Your task to perform on an android device: Open accessibility settings Image 0: 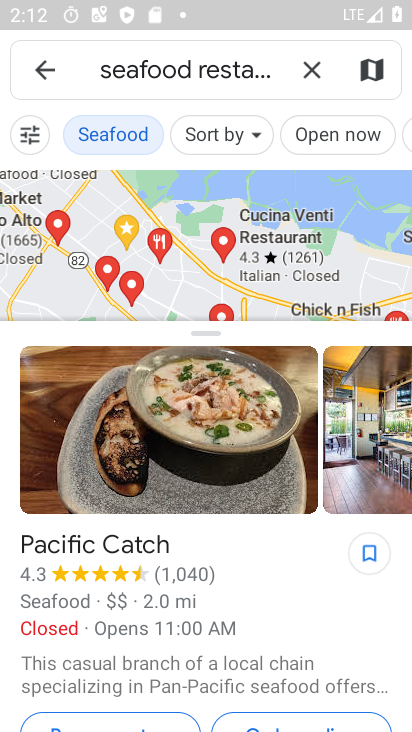
Step 0: press home button
Your task to perform on an android device: Open accessibility settings Image 1: 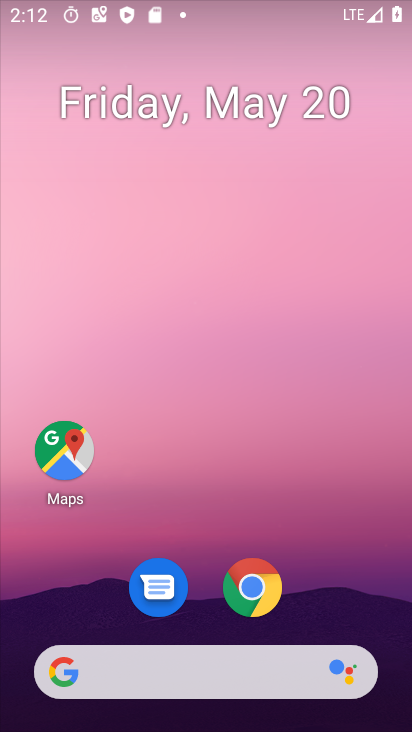
Step 1: drag from (302, 504) to (333, 178)
Your task to perform on an android device: Open accessibility settings Image 2: 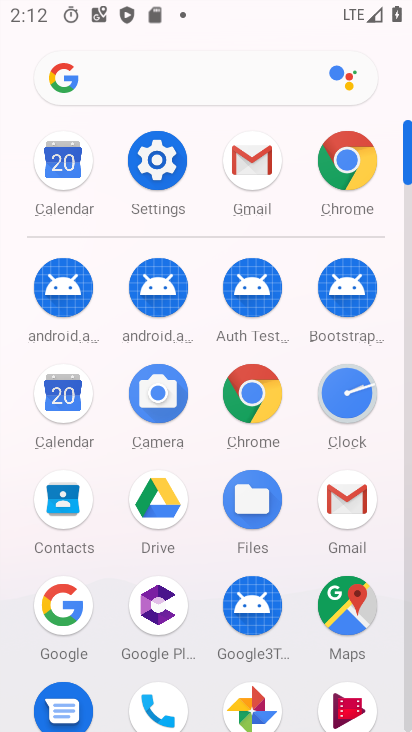
Step 2: click (144, 193)
Your task to perform on an android device: Open accessibility settings Image 3: 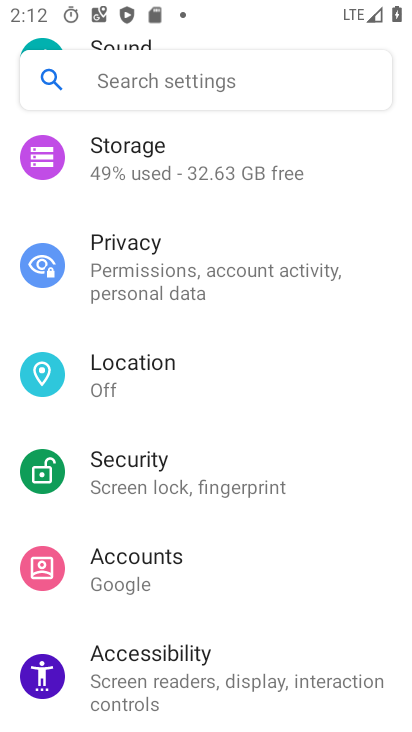
Step 3: drag from (194, 607) to (272, 156)
Your task to perform on an android device: Open accessibility settings Image 4: 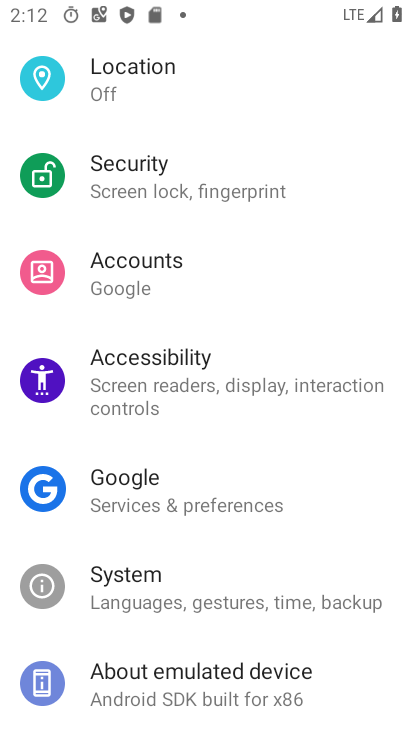
Step 4: click (194, 365)
Your task to perform on an android device: Open accessibility settings Image 5: 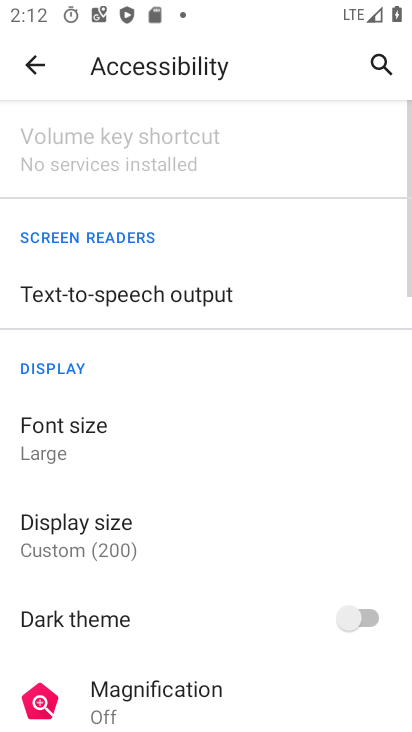
Step 5: task complete